Your task to perform on an android device: Open the Play Movies app and select the watchlist tab. Image 0: 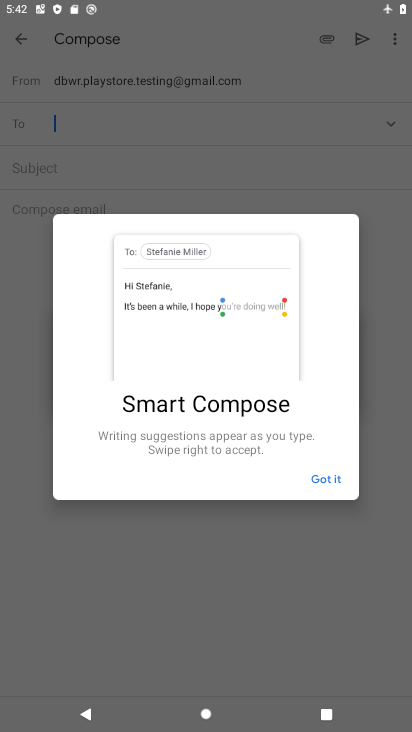
Step 0: press home button
Your task to perform on an android device: Open the Play Movies app and select the watchlist tab. Image 1: 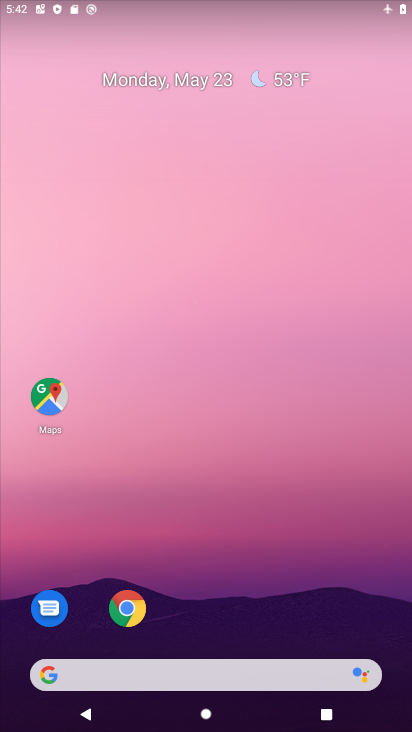
Step 1: drag from (9, 599) to (180, 268)
Your task to perform on an android device: Open the Play Movies app and select the watchlist tab. Image 2: 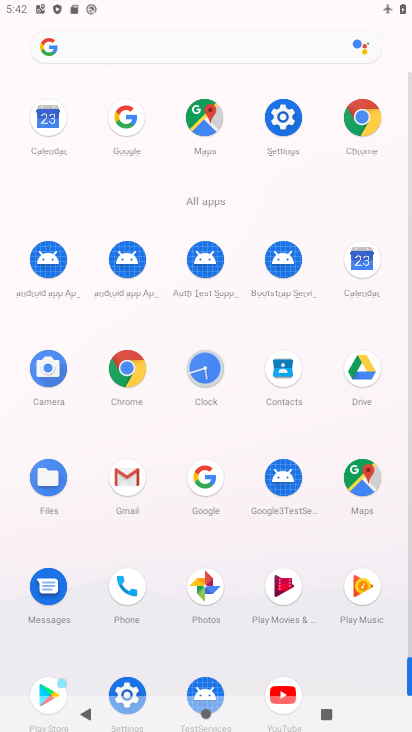
Step 2: click (115, 594)
Your task to perform on an android device: Open the Play Movies app and select the watchlist tab. Image 3: 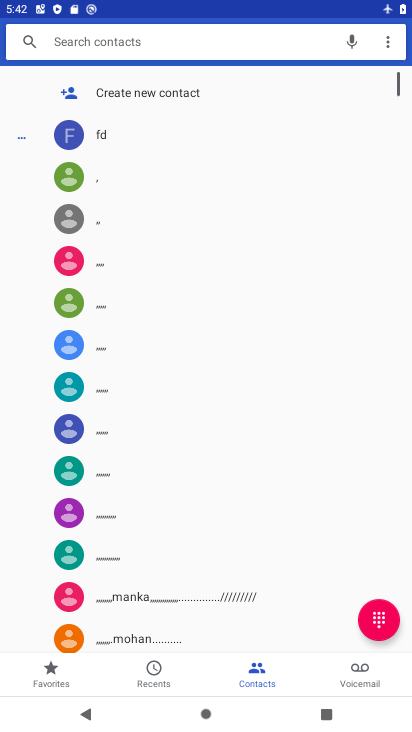
Step 3: press home button
Your task to perform on an android device: Open the Play Movies app and select the watchlist tab. Image 4: 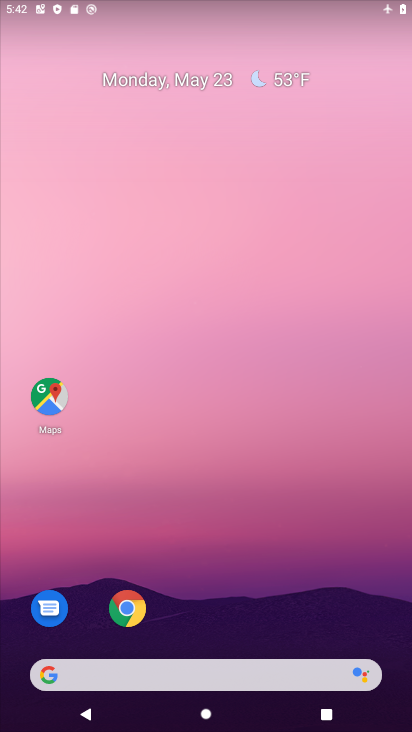
Step 4: drag from (30, 423) to (200, 140)
Your task to perform on an android device: Open the Play Movies app and select the watchlist tab. Image 5: 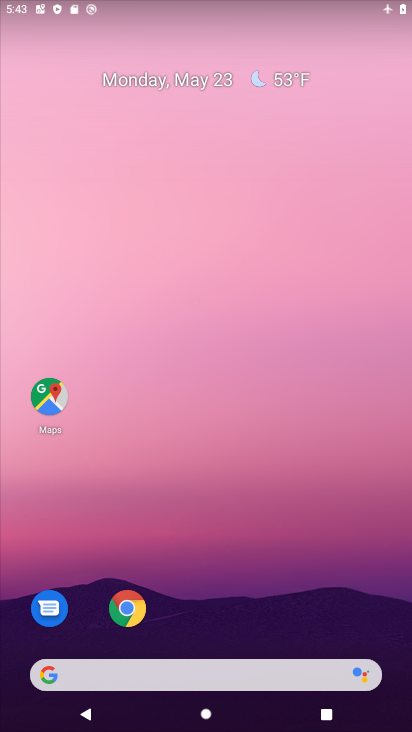
Step 5: drag from (11, 643) to (405, 1)
Your task to perform on an android device: Open the Play Movies app and select the watchlist tab. Image 6: 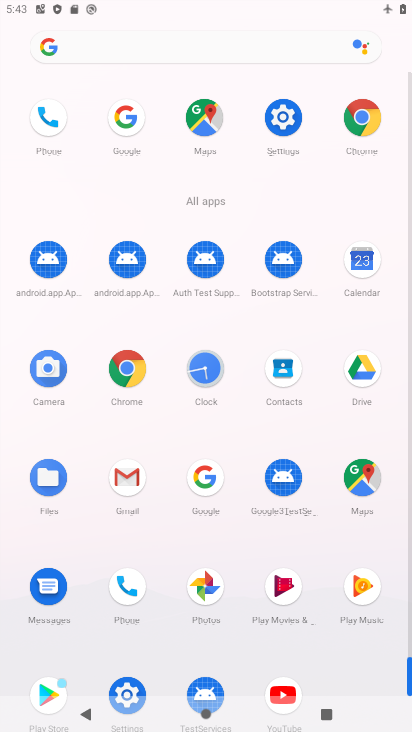
Step 6: click (276, 575)
Your task to perform on an android device: Open the Play Movies app and select the watchlist tab. Image 7: 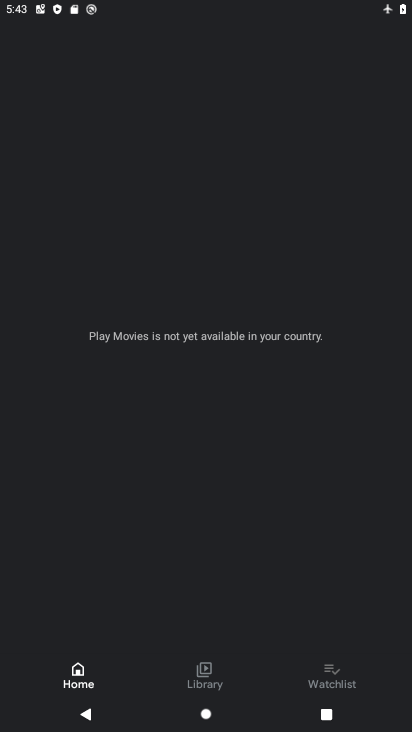
Step 7: click (322, 668)
Your task to perform on an android device: Open the Play Movies app and select the watchlist tab. Image 8: 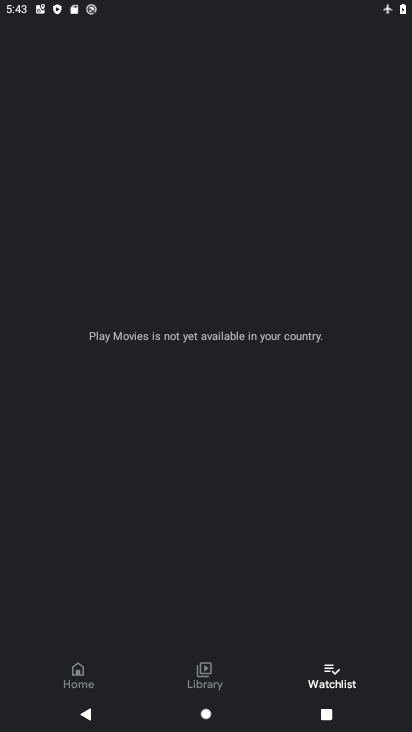
Step 8: task complete